Your task to perform on an android device: turn on data saver in the chrome app Image 0: 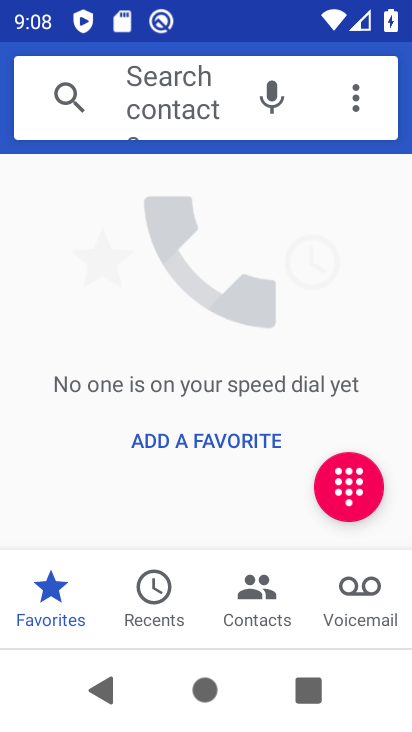
Step 0: click (208, 698)
Your task to perform on an android device: turn on data saver in the chrome app Image 1: 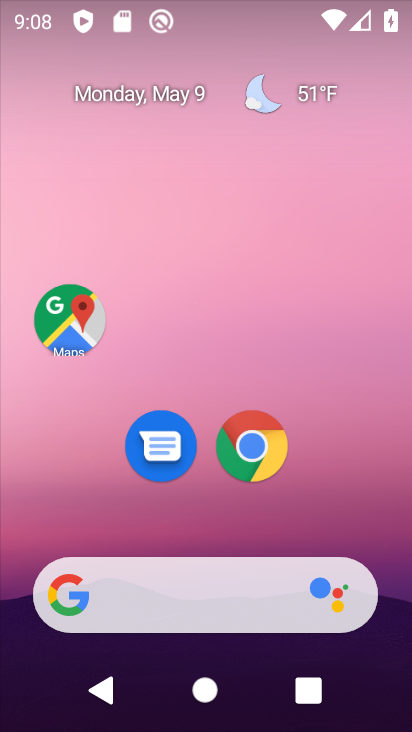
Step 1: click (266, 450)
Your task to perform on an android device: turn on data saver in the chrome app Image 2: 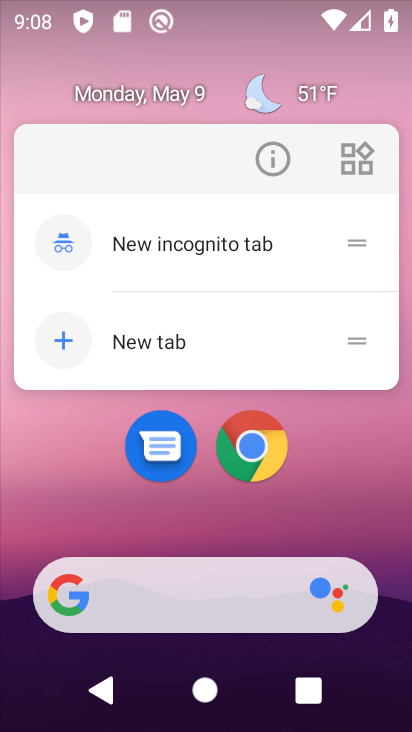
Step 2: click (266, 450)
Your task to perform on an android device: turn on data saver in the chrome app Image 3: 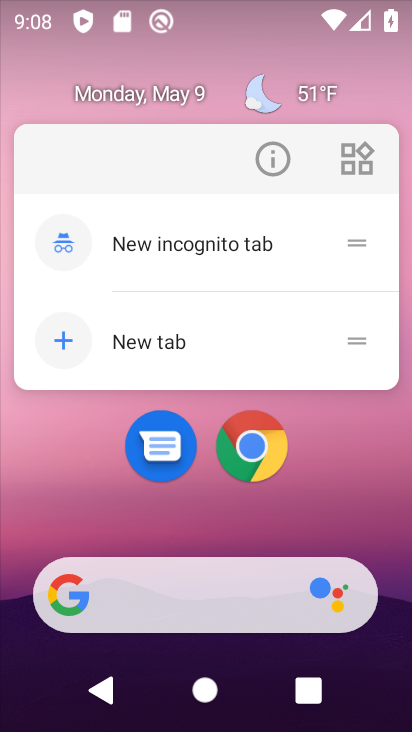
Step 3: click (263, 446)
Your task to perform on an android device: turn on data saver in the chrome app Image 4: 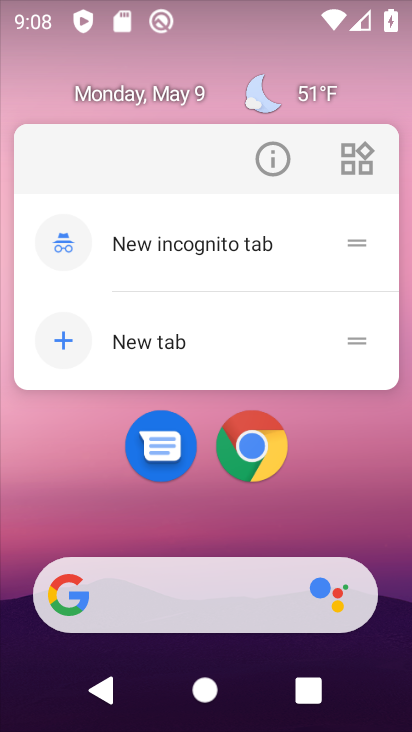
Step 4: click (263, 446)
Your task to perform on an android device: turn on data saver in the chrome app Image 5: 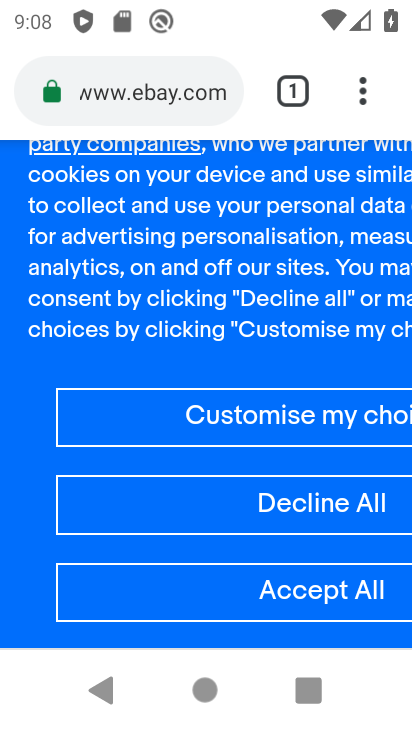
Step 5: click (363, 87)
Your task to perform on an android device: turn on data saver in the chrome app Image 6: 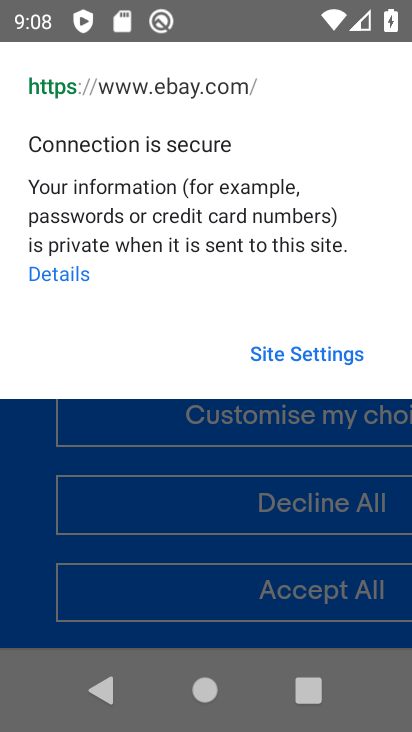
Step 6: click (149, 488)
Your task to perform on an android device: turn on data saver in the chrome app Image 7: 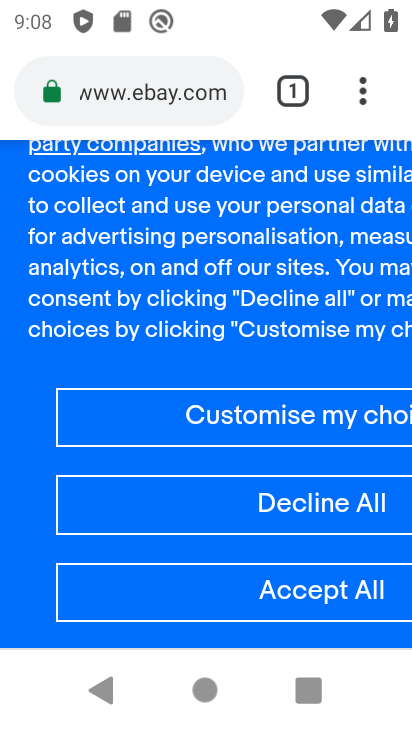
Step 7: click (360, 76)
Your task to perform on an android device: turn on data saver in the chrome app Image 8: 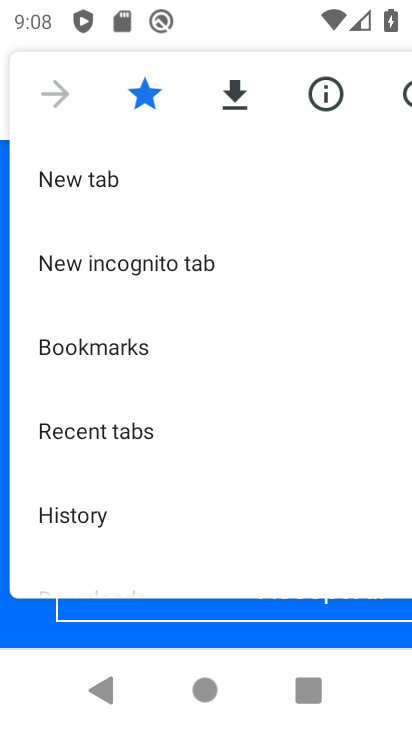
Step 8: drag from (111, 502) to (98, 84)
Your task to perform on an android device: turn on data saver in the chrome app Image 9: 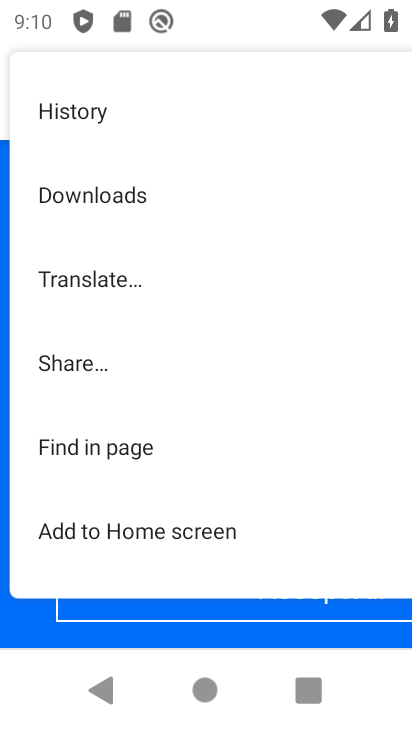
Step 9: drag from (202, 458) to (181, 135)
Your task to perform on an android device: turn on data saver in the chrome app Image 10: 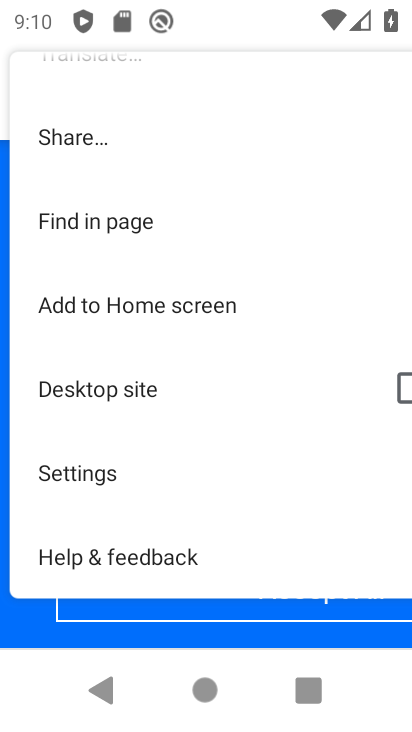
Step 10: click (128, 471)
Your task to perform on an android device: turn on data saver in the chrome app Image 11: 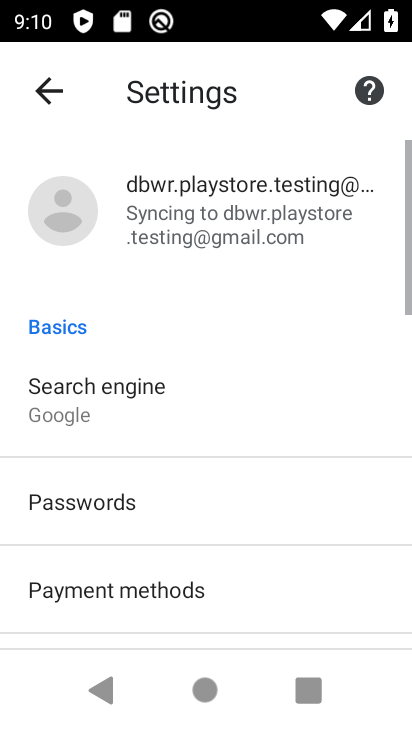
Step 11: drag from (127, 406) to (123, 147)
Your task to perform on an android device: turn on data saver in the chrome app Image 12: 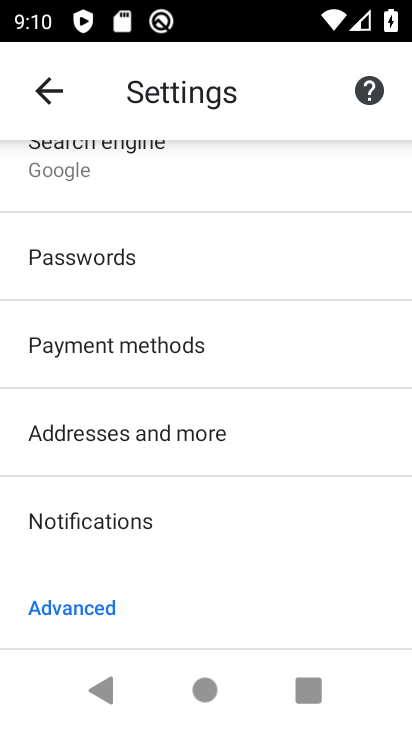
Step 12: drag from (192, 596) to (208, 233)
Your task to perform on an android device: turn on data saver in the chrome app Image 13: 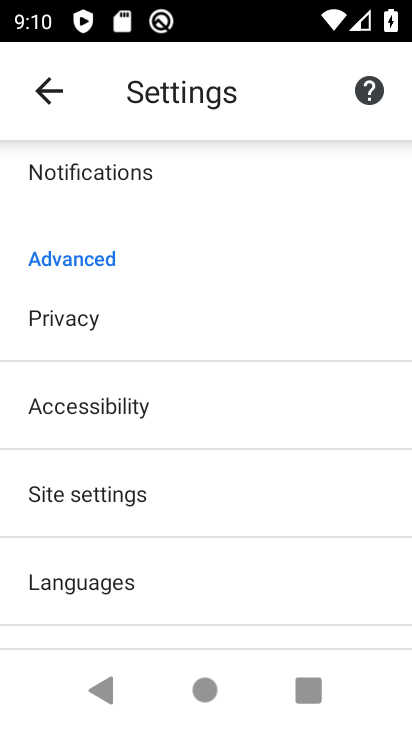
Step 13: drag from (181, 560) to (197, 216)
Your task to perform on an android device: turn on data saver in the chrome app Image 14: 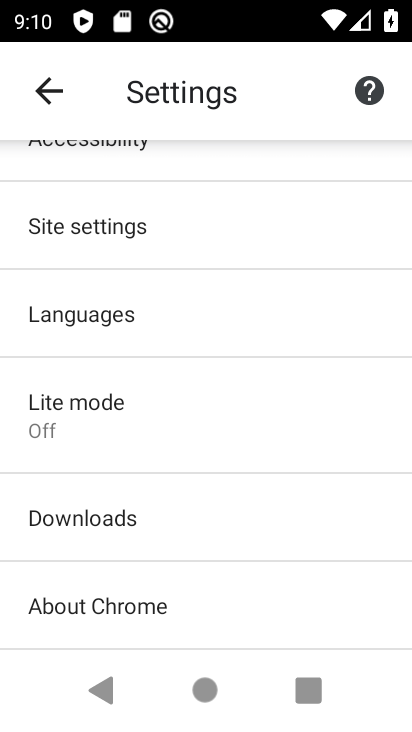
Step 14: click (169, 415)
Your task to perform on an android device: turn on data saver in the chrome app Image 15: 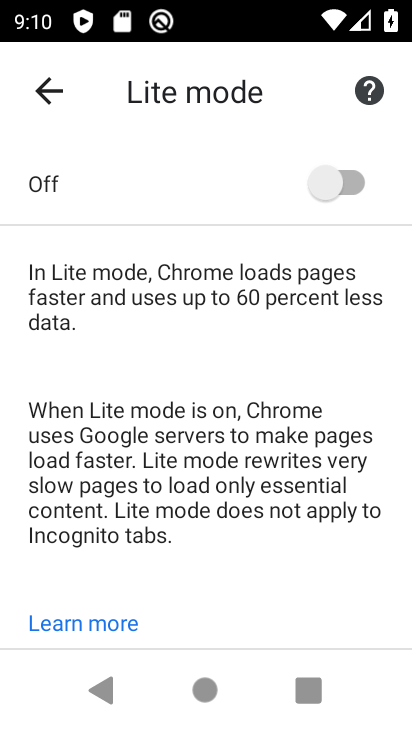
Step 15: click (329, 187)
Your task to perform on an android device: turn on data saver in the chrome app Image 16: 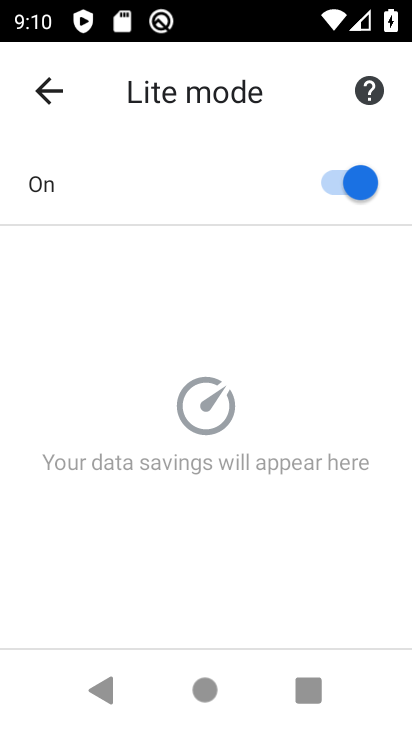
Step 16: task complete